Your task to perform on an android device: allow cookies in the chrome app Image 0: 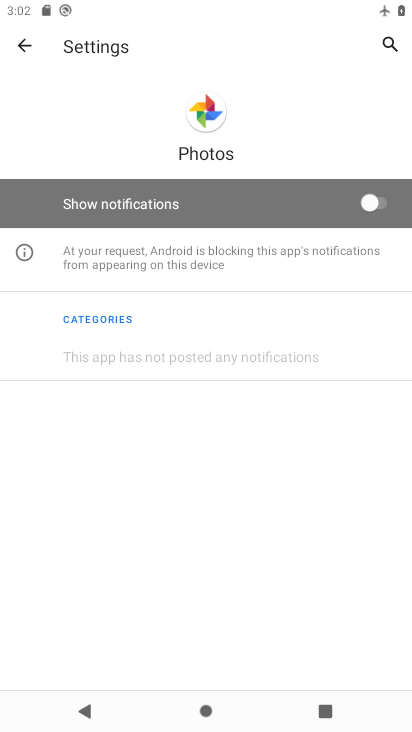
Step 0: press home button
Your task to perform on an android device: allow cookies in the chrome app Image 1: 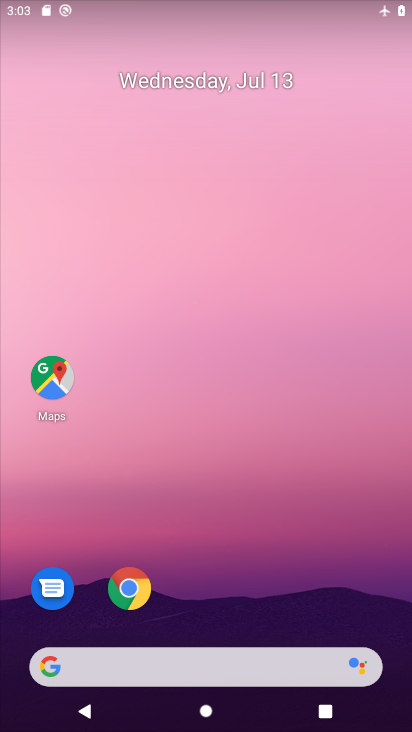
Step 1: click (141, 591)
Your task to perform on an android device: allow cookies in the chrome app Image 2: 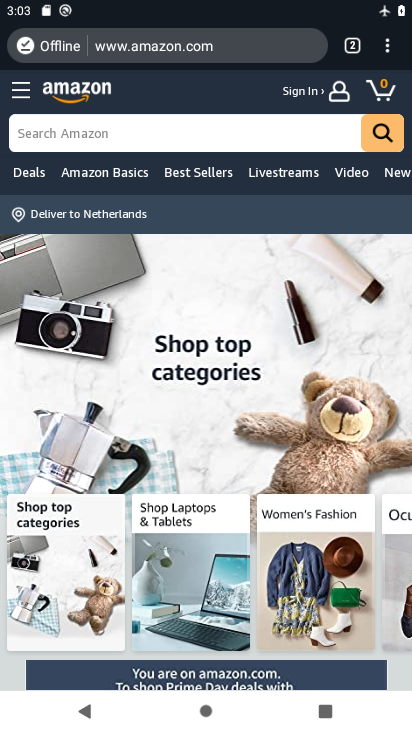
Step 2: drag from (390, 42) to (227, 505)
Your task to perform on an android device: allow cookies in the chrome app Image 3: 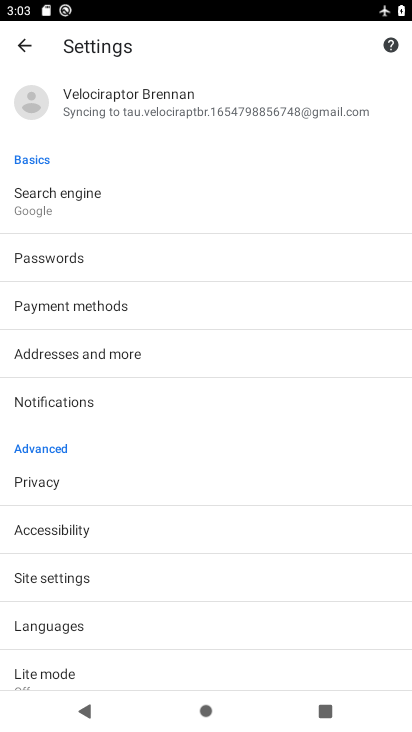
Step 3: click (89, 582)
Your task to perform on an android device: allow cookies in the chrome app Image 4: 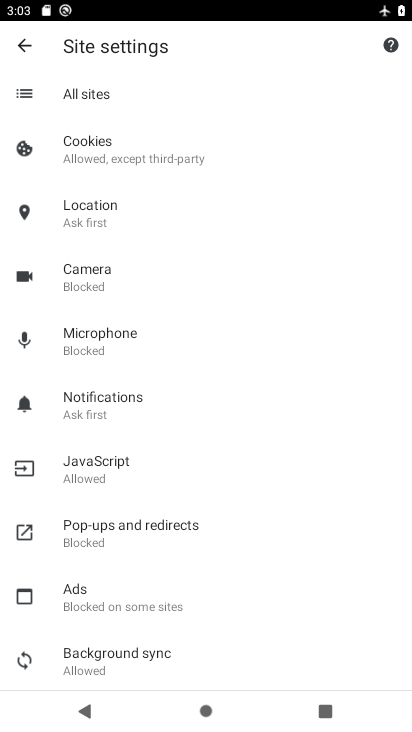
Step 4: click (116, 154)
Your task to perform on an android device: allow cookies in the chrome app Image 5: 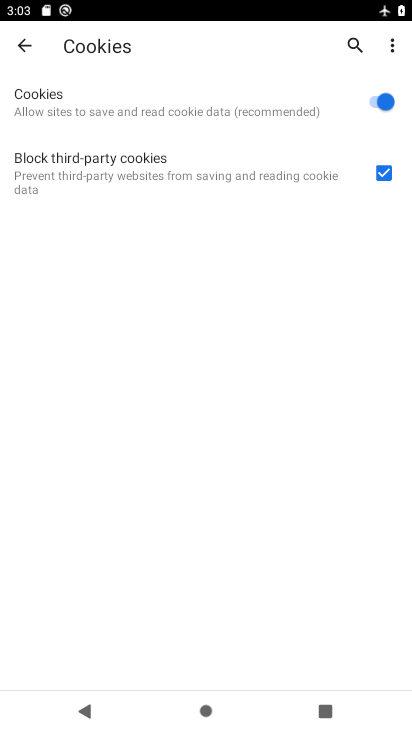
Step 5: task complete